Your task to perform on an android device: Go to Yahoo.com Image 0: 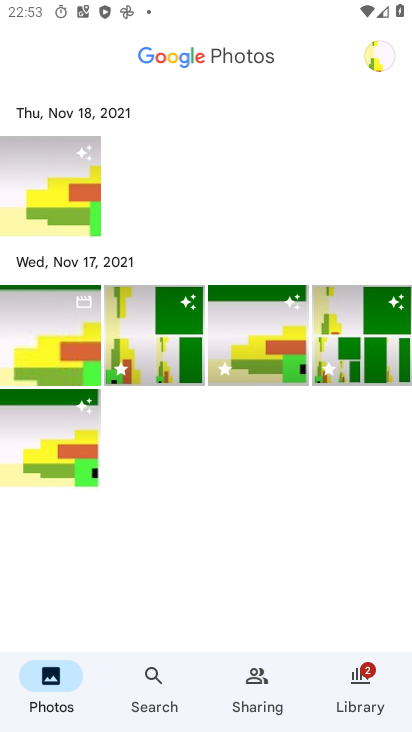
Step 0: press home button
Your task to perform on an android device: Go to Yahoo.com Image 1: 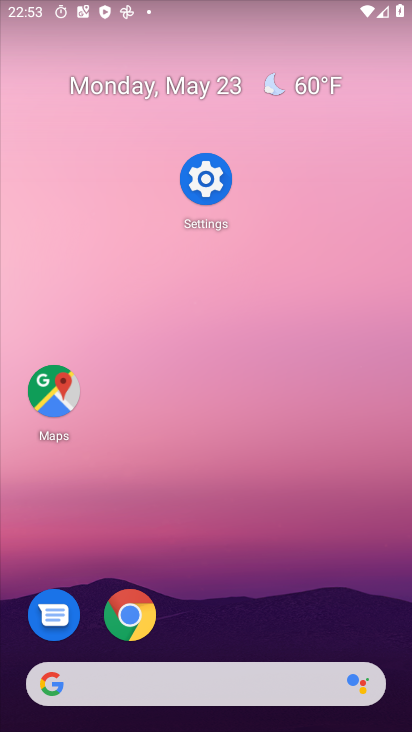
Step 1: click (120, 612)
Your task to perform on an android device: Go to Yahoo.com Image 2: 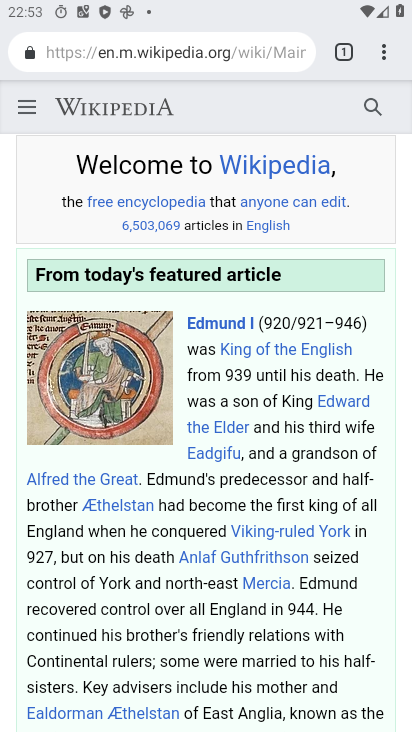
Step 2: press back button
Your task to perform on an android device: Go to Yahoo.com Image 3: 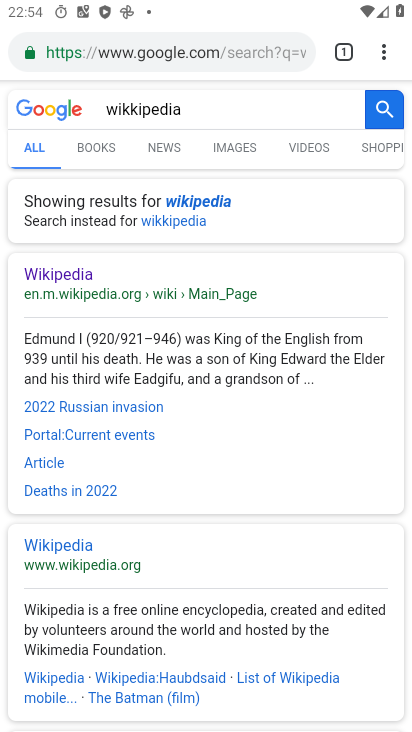
Step 3: press back button
Your task to perform on an android device: Go to Yahoo.com Image 4: 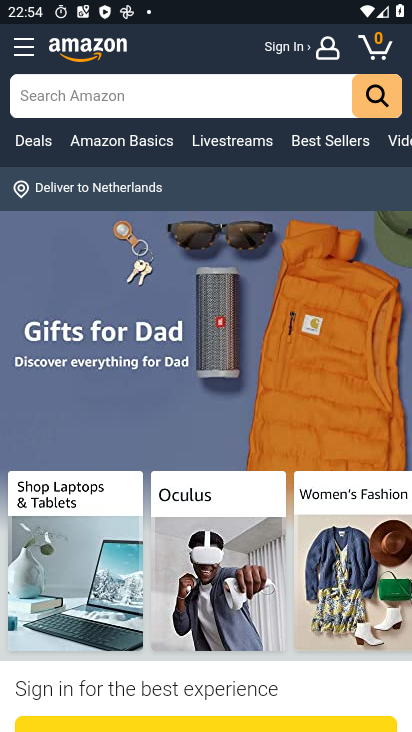
Step 4: press back button
Your task to perform on an android device: Go to Yahoo.com Image 5: 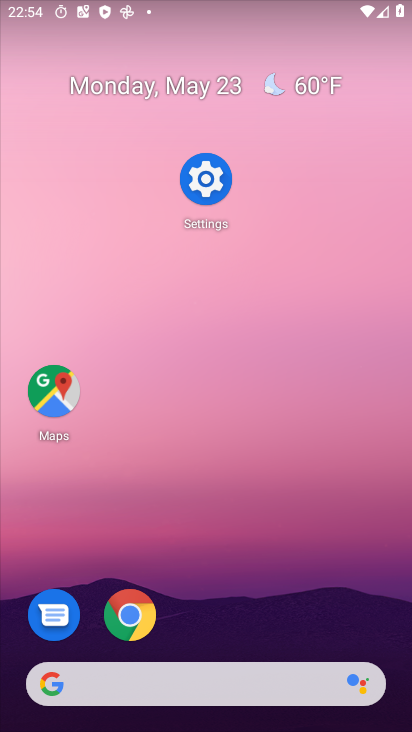
Step 5: click (129, 614)
Your task to perform on an android device: Go to Yahoo.com Image 6: 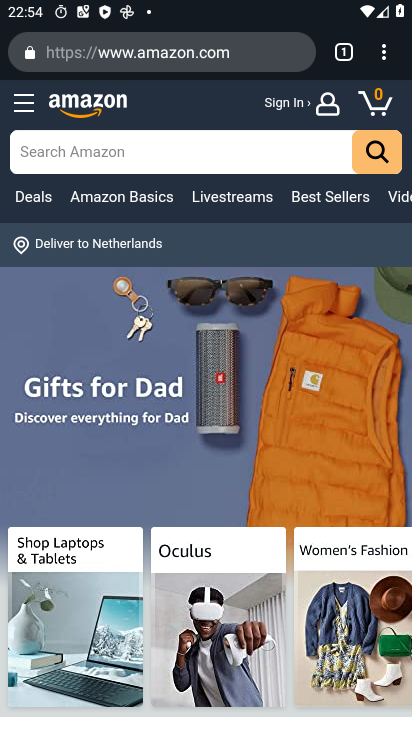
Step 6: click (223, 53)
Your task to perform on an android device: Go to Yahoo.com Image 7: 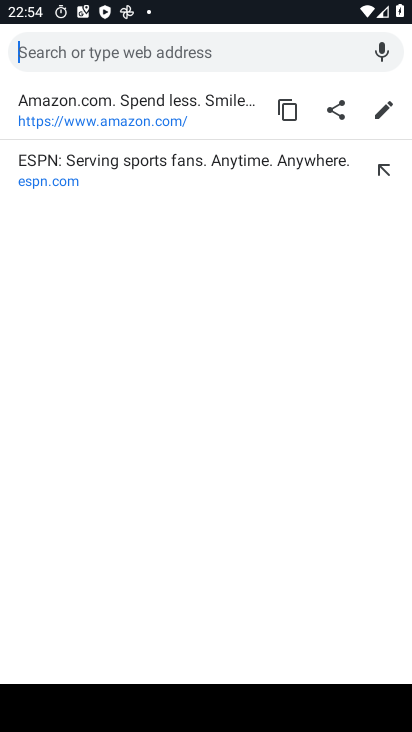
Step 7: type "yahoo.com"
Your task to perform on an android device: Go to Yahoo.com Image 8: 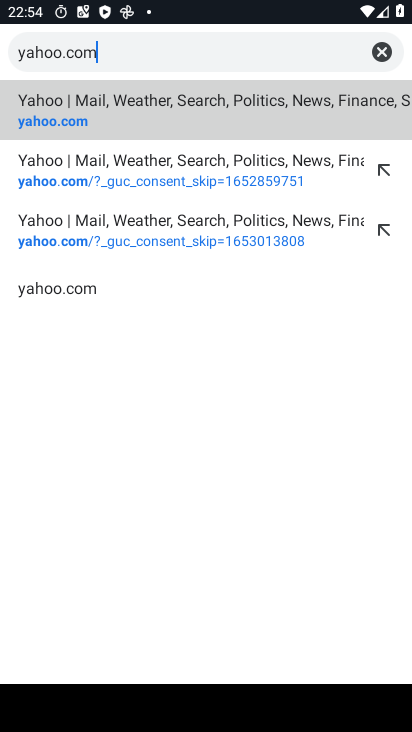
Step 8: click (327, 129)
Your task to perform on an android device: Go to Yahoo.com Image 9: 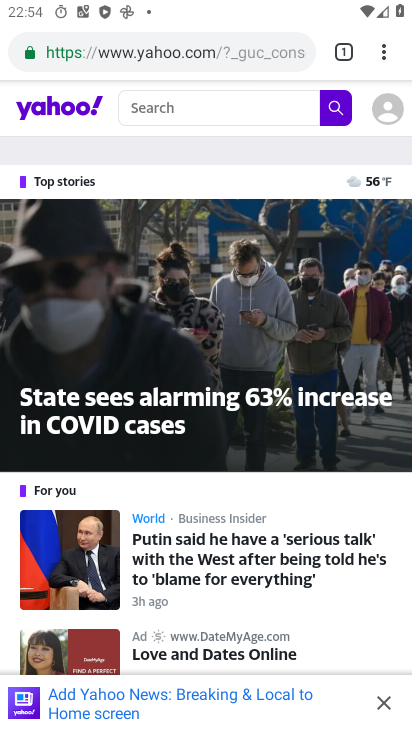
Step 9: task complete